Your task to perform on an android device: open the mobile data screen to see how much data has been used Image 0: 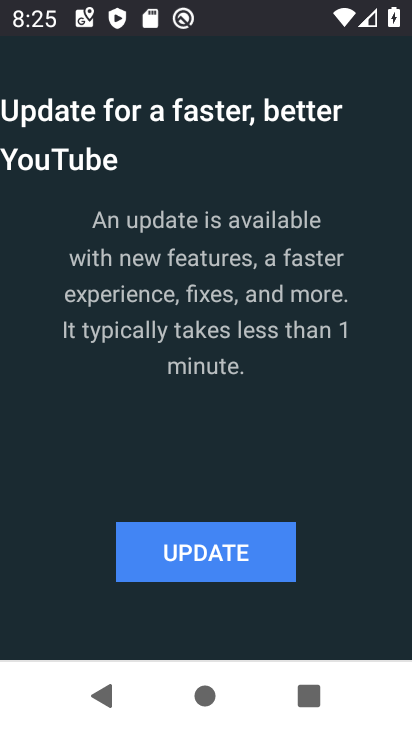
Step 0: press back button
Your task to perform on an android device: open the mobile data screen to see how much data has been used Image 1: 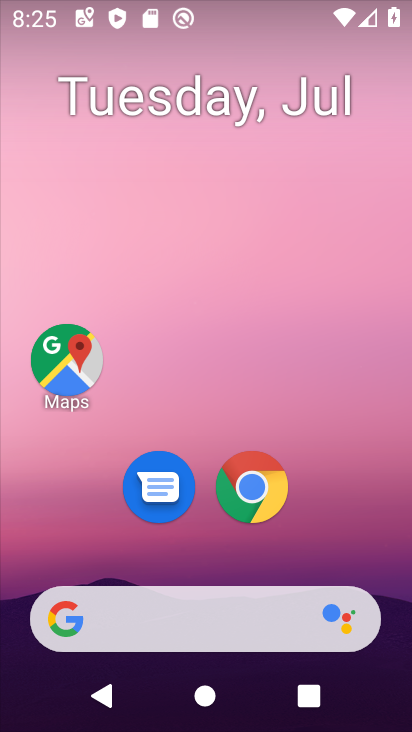
Step 1: drag from (191, 548) to (202, 45)
Your task to perform on an android device: open the mobile data screen to see how much data has been used Image 2: 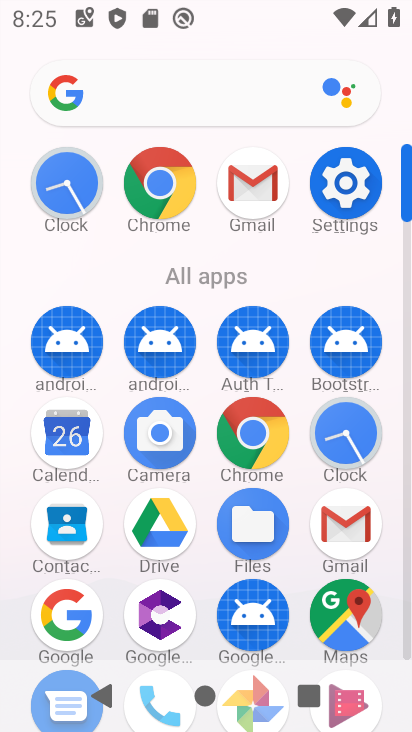
Step 2: click (340, 180)
Your task to perform on an android device: open the mobile data screen to see how much data has been used Image 3: 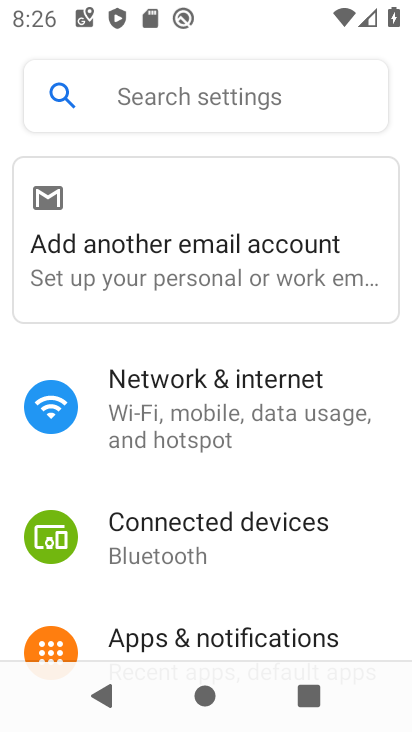
Step 3: click (205, 416)
Your task to perform on an android device: open the mobile data screen to see how much data has been used Image 4: 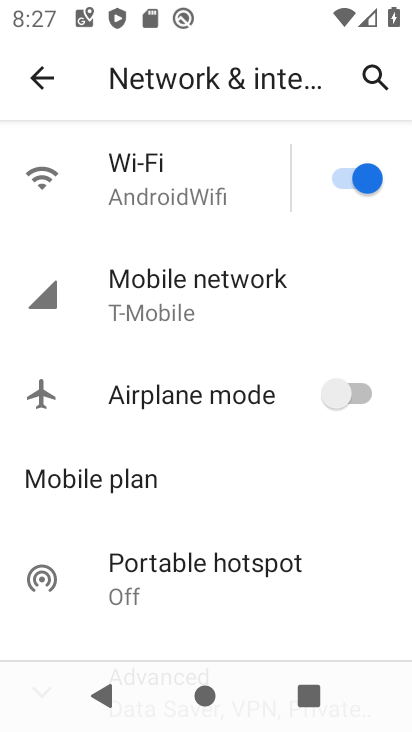
Step 4: drag from (158, 287) to (226, 693)
Your task to perform on an android device: open the mobile data screen to see how much data has been used Image 5: 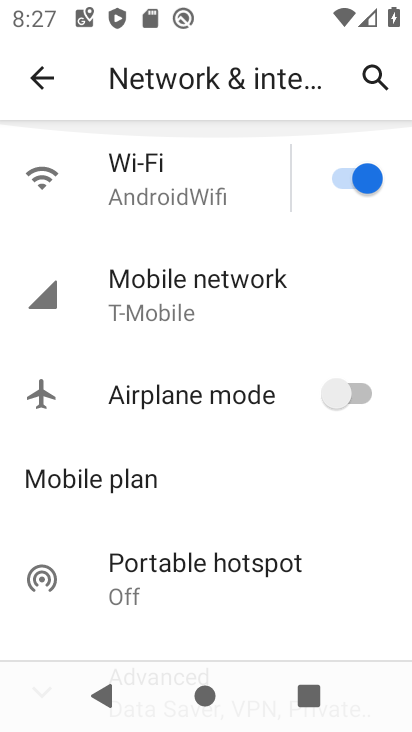
Step 5: click (182, 281)
Your task to perform on an android device: open the mobile data screen to see how much data has been used Image 6: 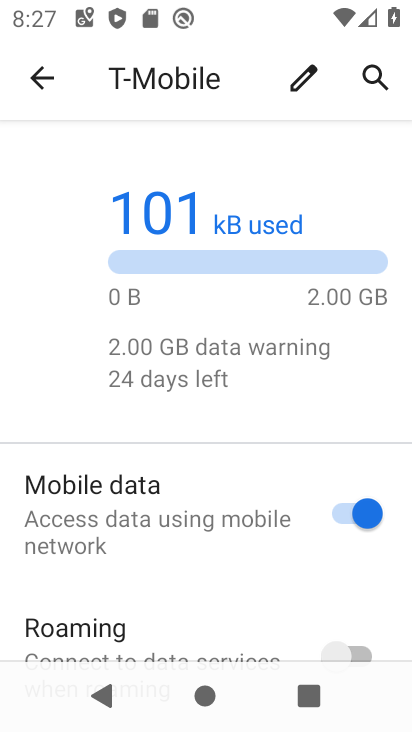
Step 6: drag from (177, 599) to (292, 180)
Your task to perform on an android device: open the mobile data screen to see how much data has been used Image 7: 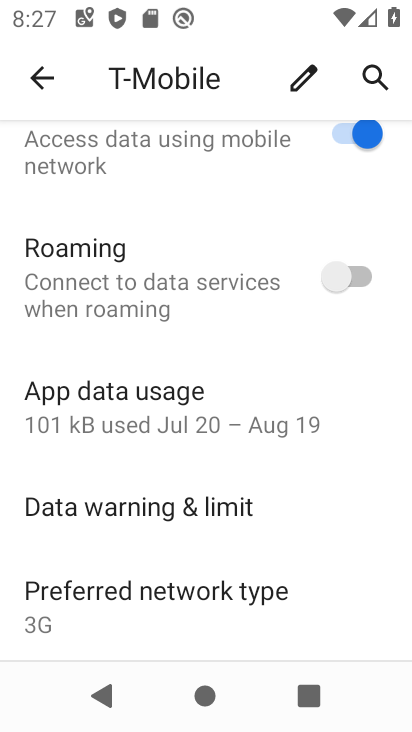
Step 7: click (171, 414)
Your task to perform on an android device: open the mobile data screen to see how much data has been used Image 8: 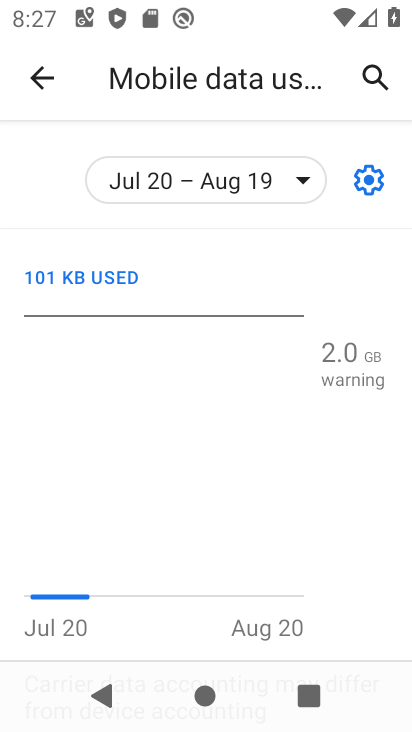
Step 8: task complete